Your task to perform on an android device: Clear all items from cart on newegg. Search for razer huntsman on newegg, select the first entry, add it to the cart, then select checkout. Image 0: 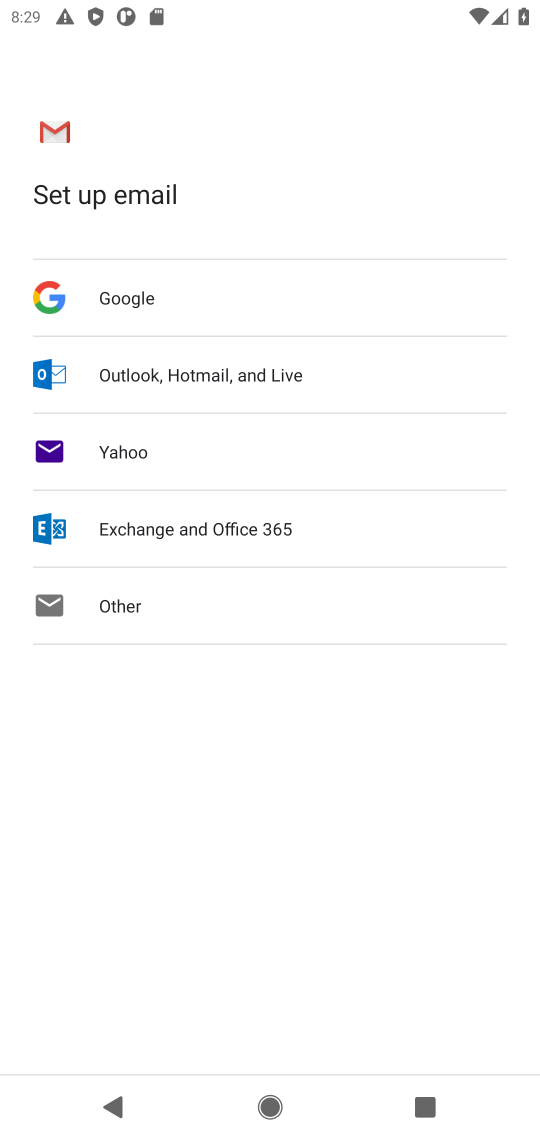
Step 0: press home button
Your task to perform on an android device: Clear all items from cart on newegg. Search for razer huntsman on newegg, select the first entry, add it to the cart, then select checkout. Image 1: 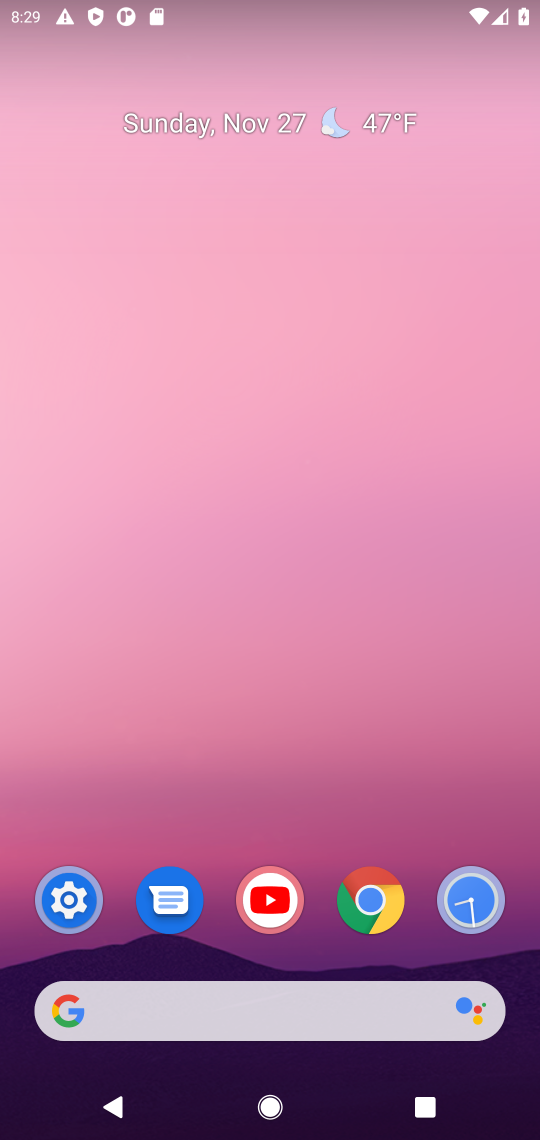
Step 1: click (377, 903)
Your task to perform on an android device: Clear all items from cart on newegg. Search for razer huntsman on newegg, select the first entry, add it to the cart, then select checkout. Image 2: 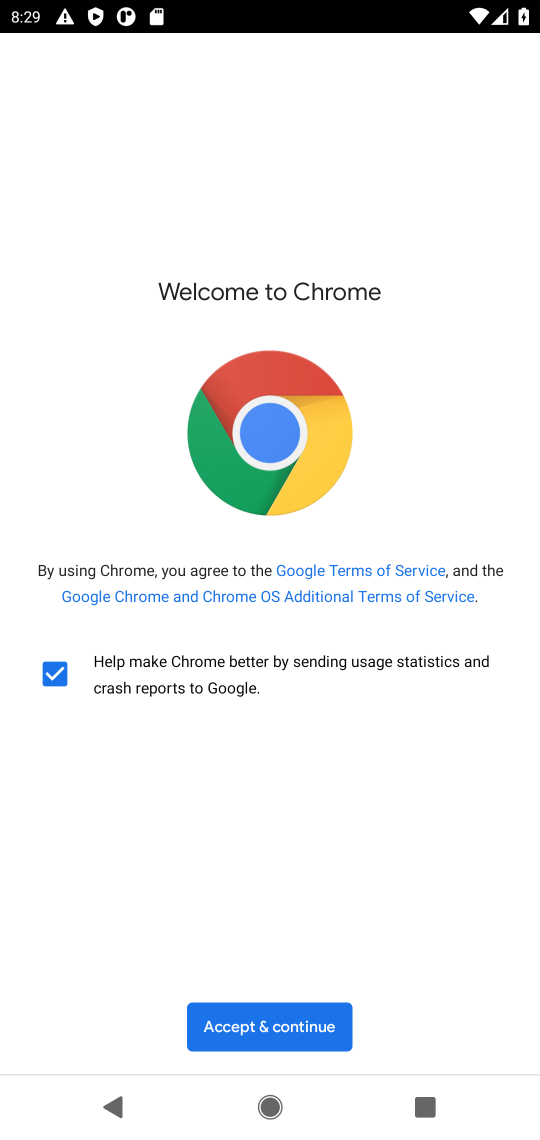
Step 2: click (253, 1013)
Your task to perform on an android device: Clear all items from cart on newegg. Search for razer huntsman on newegg, select the first entry, add it to the cart, then select checkout. Image 3: 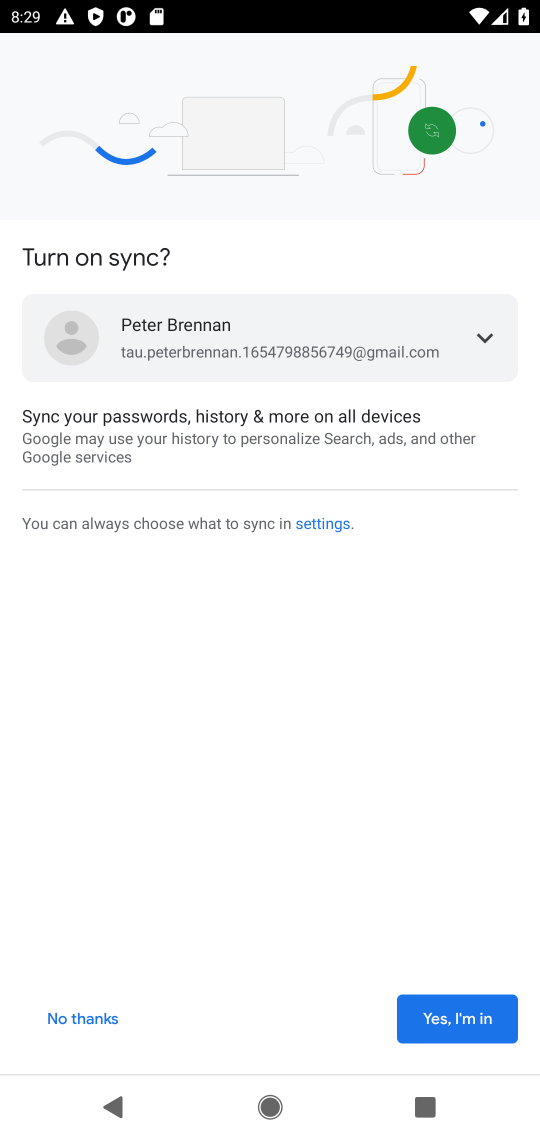
Step 3: click (85, 1025)
Your task to perform on an android device: Clear all items from cart on newegg. Search for razer huntsman on newegg, select the first entry, add it to the cart, then select checkout. Image 4: 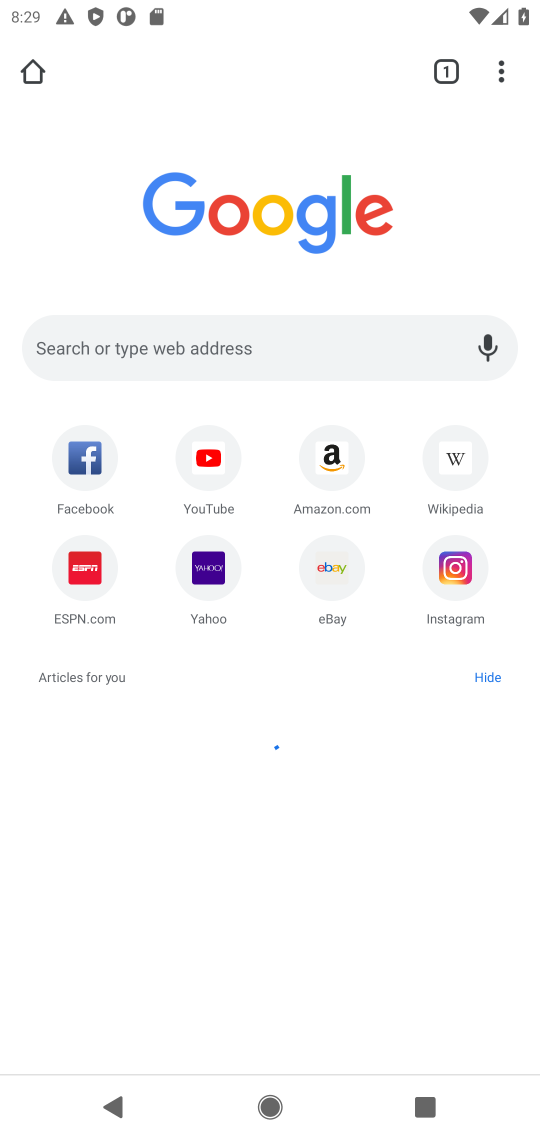
Step 4: click (186, 345)
Your task to perform on an android device: Clear all items from cart on newegg. Search for razer huntsman on newegg, select the first entry, add it to the cart, then select checkout. Image 5: 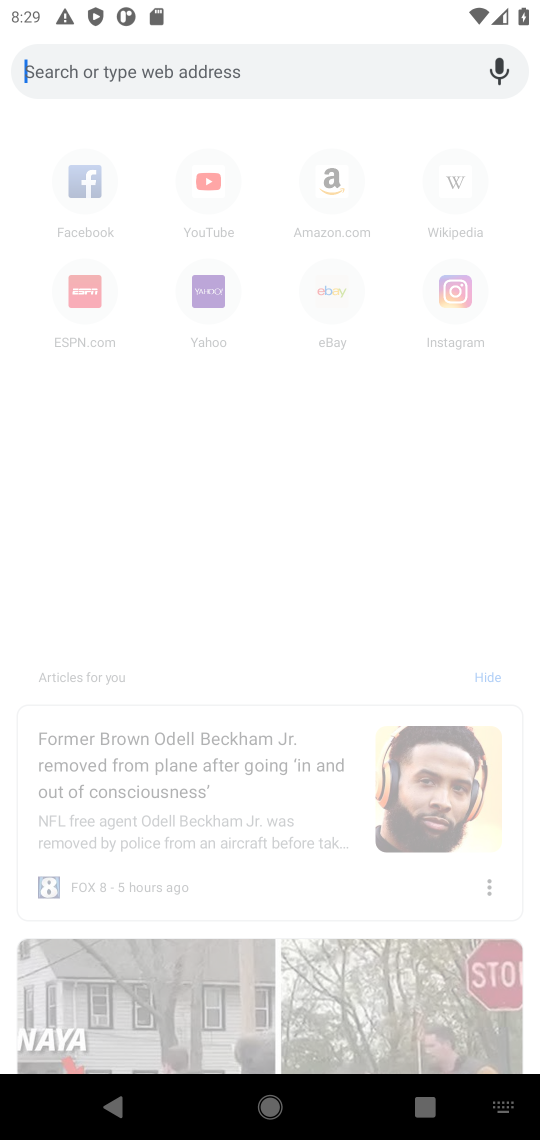
Step 5: type "newegg.com"
Your task to perform on an android device: Clear all items from cart on newegg. Search for razer huntsman on newegg, select the first entry, add it to the cart, then select checkout. Image 6: 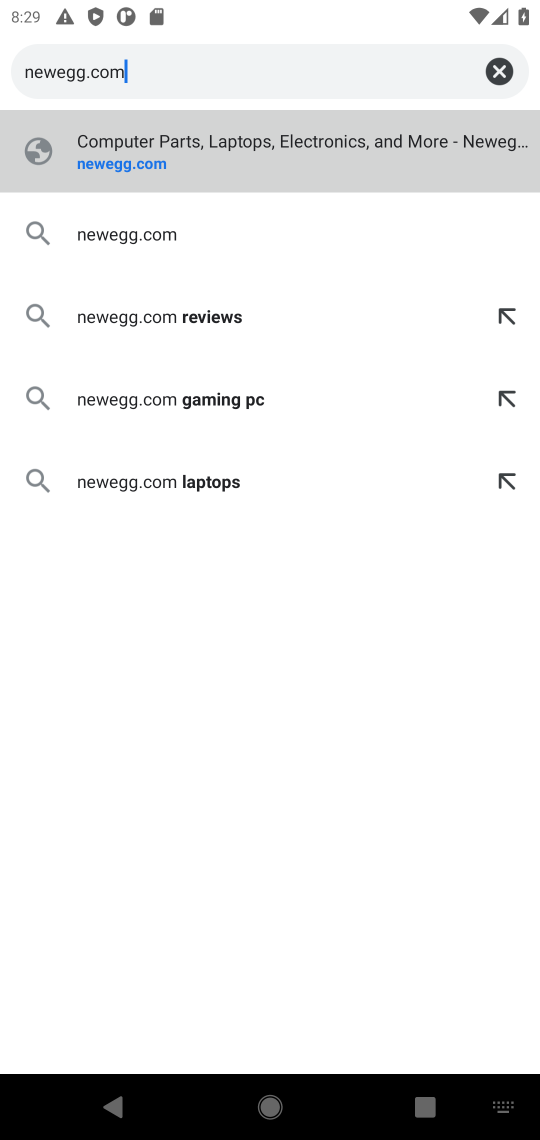
Step 6: click (124, 164)
Your task to perform on an android device: Clear all items from cart on newegg. Search for razer huntsman on newegg, select the first entry, add it to the cart, then select checkout. Image 7: 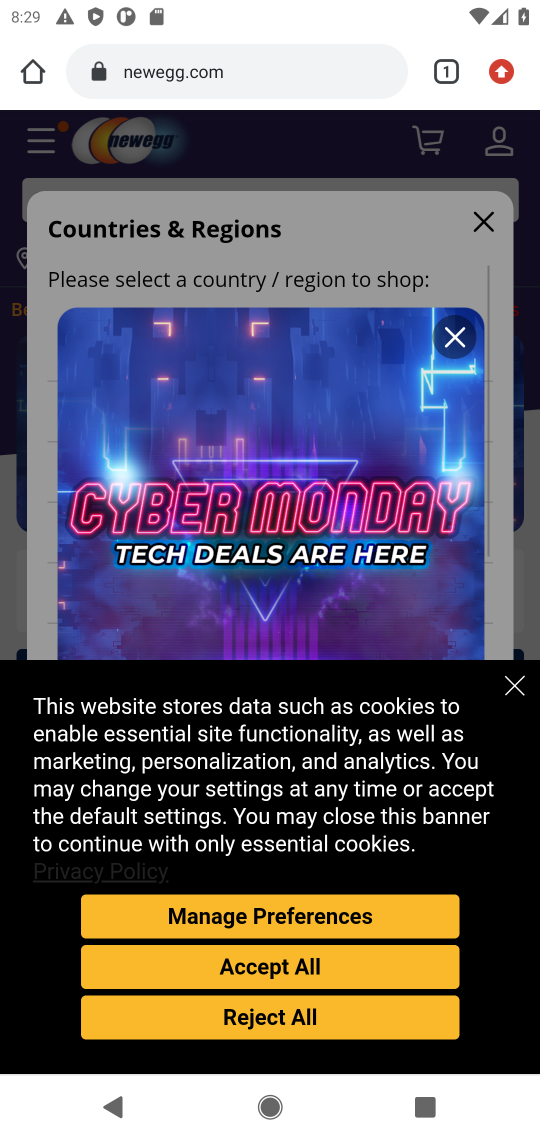
Step 7: click (510, 694)
Your task to perform on an android device: Clear all items from cart on newegg. Search for razer huntsman on newegg, select the first entry, add it to the cart, then select checkout. Image 8: 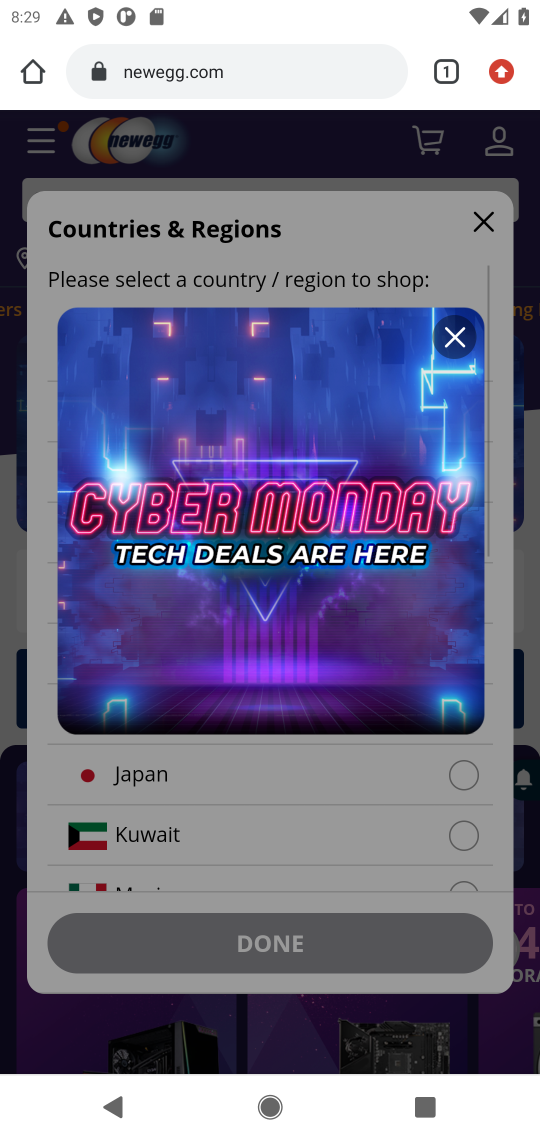
Step 8: click (458, 343)
Your task to perform on an android device: Clear all items from cart on newegg. Search for razer huntsman on newegg, select the first entry, add it to the cart, then select checkout. Image 9: 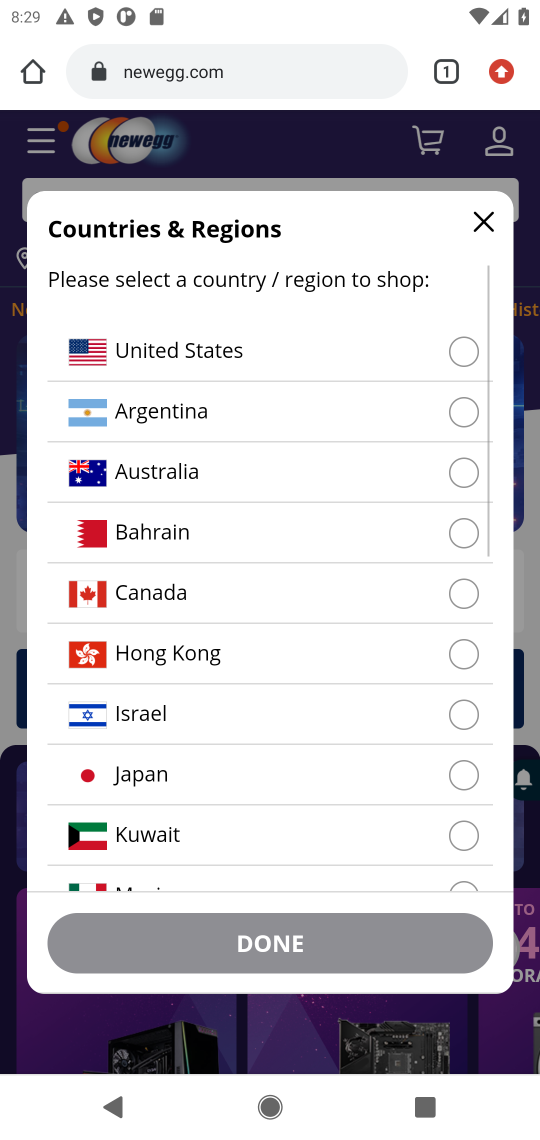
Step 9: click (210, 358)
Your task to perform on an android device: Clear all items from cart on newegg. Search for razer huntsman on newegg, select the first entry, add it to the cart, then select checkout. Image 10: 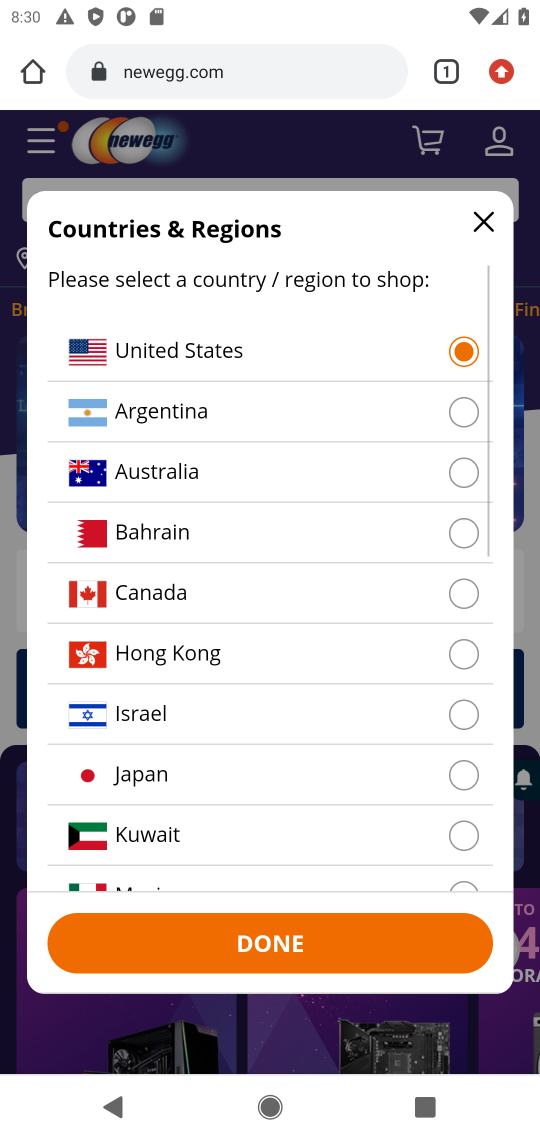
Step 10: click (288, 951)
Your task to perform on an android device: Clear all items from cart on newegg. Search for razer huntsman on newegg, select the first entry, add it to the cart, then select checkout. Image 11: 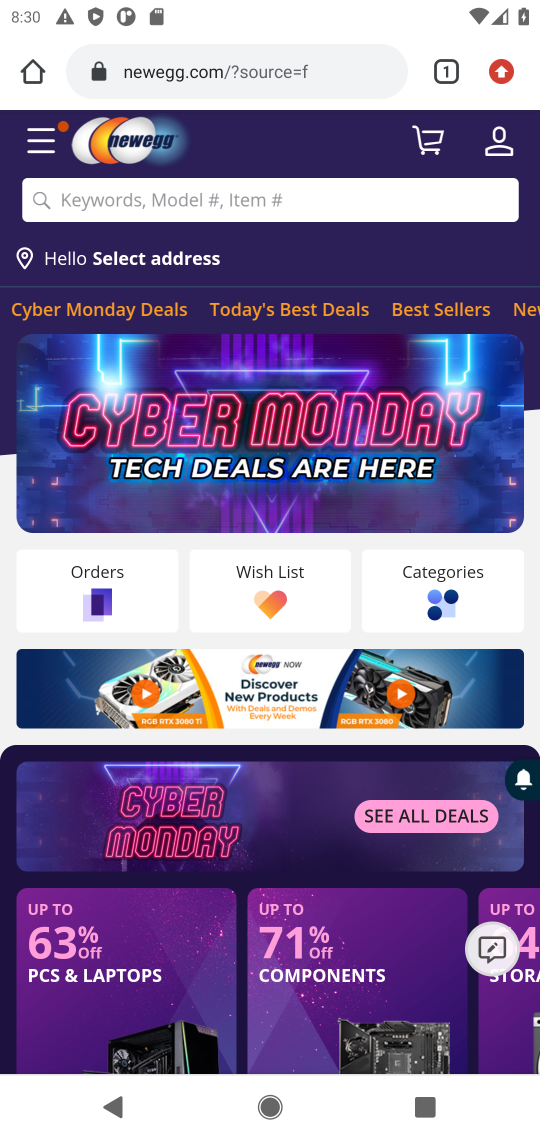
Step 11: click (423, 148)
Your task to perform on an android device: Clear all items from cart on newegg. Search for razer huntsman on newegg, select the first entry, add it to the cart, then select checkout. Image 12: 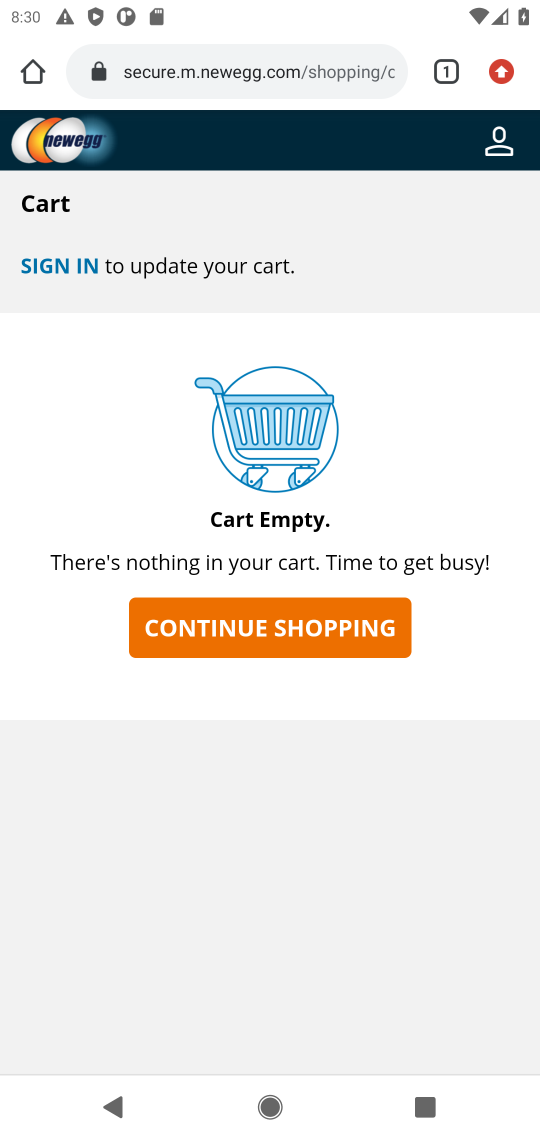
Step 12: click (306, 622)
Your task to perform on an android device: Clear all items from cart on newegg. Search for razer huntsman on newegg, select the first entry, add it to the cart, then select checkout. Image 13: 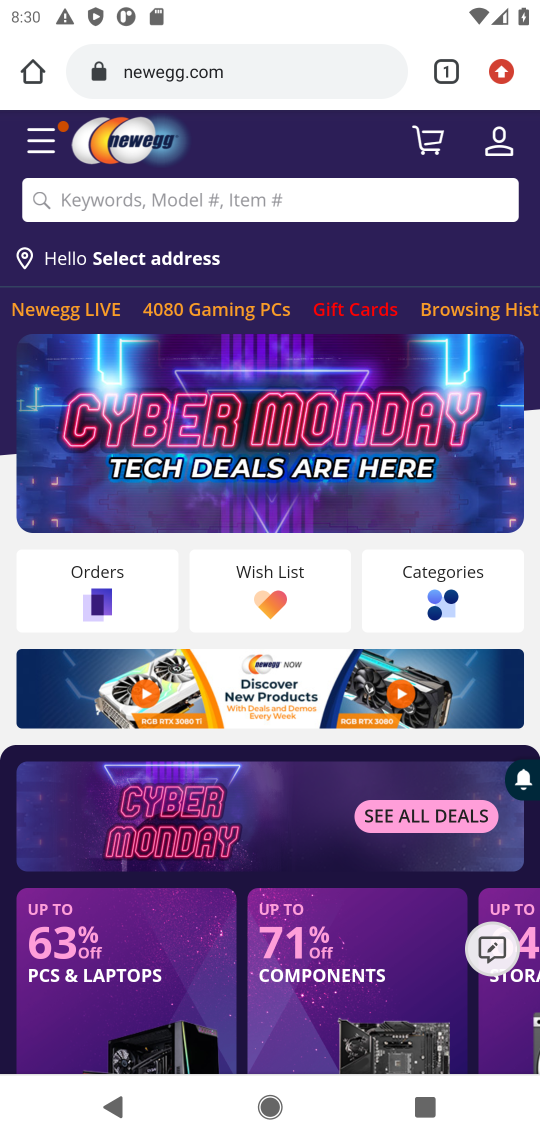
Step 13: click (221, 196)
Your task to perform on an android device: Clear all items from cart on newegg. Search for razer huntsman on newegg, select the first entry, add it to the cart, then select checkout. Image 14: 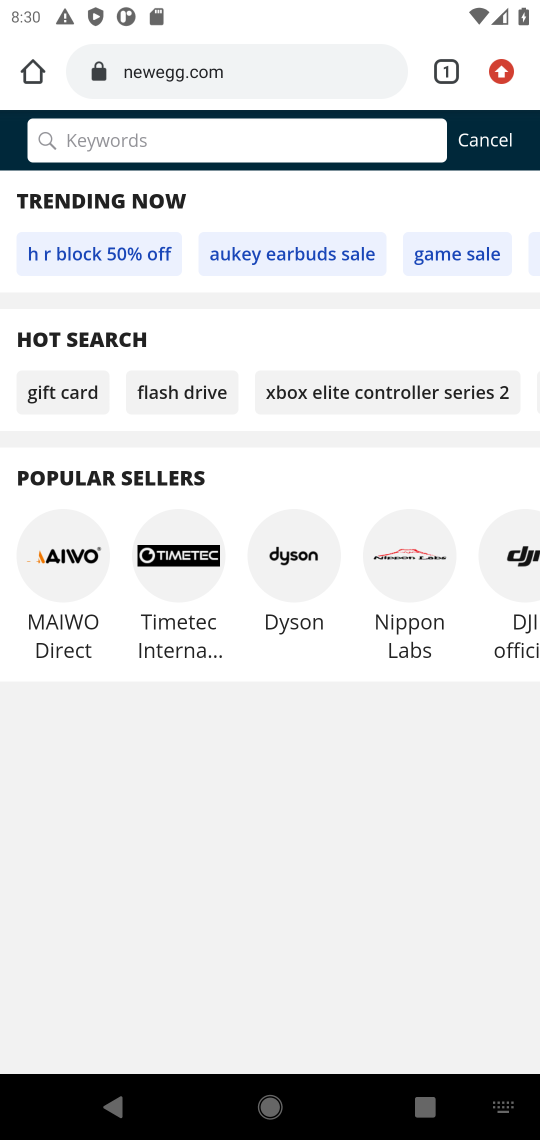
Step 14: type "razer huntsman"
Your task to perform on an android device: Clear all items from cart on newegg. Search for razer huntsman on newegg, select the first entry, add it to the cart, then select checkout. Image 15: 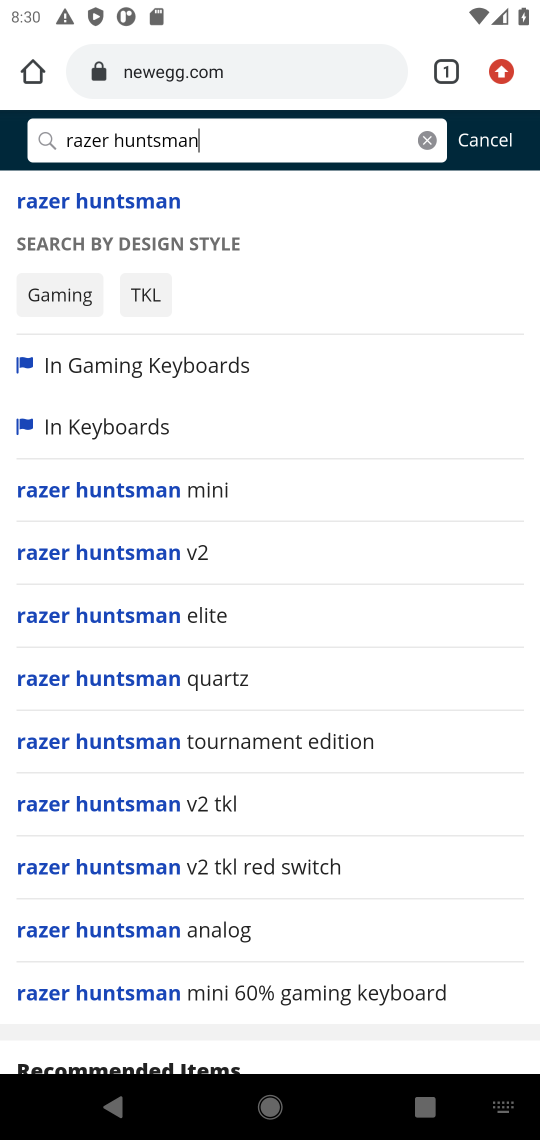
Step 15: click (131, 204)
Your task to perform on an android device: Clear all items from cart on newegg. Search for razer huntsman on newegg, select the first entry, add it to the cart, then select checkout. Image 16: 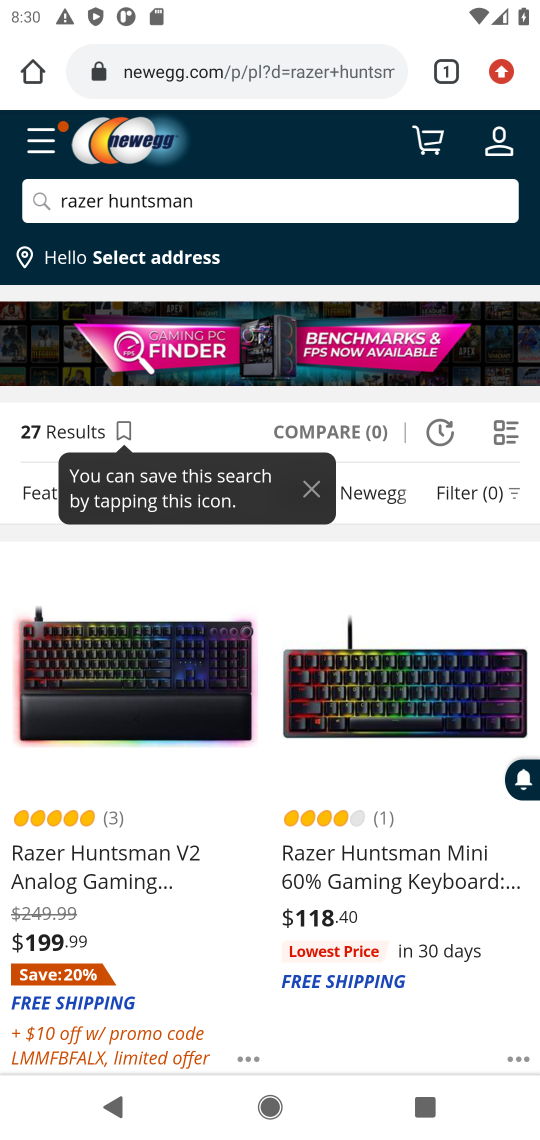
Step 16: click (272, 699)
Your task to perform on an android device: Clear all items from cart on newegg. Search for razer huntsman on newegg, select the first entry, add it to the cart, then select checkout. Image 17: 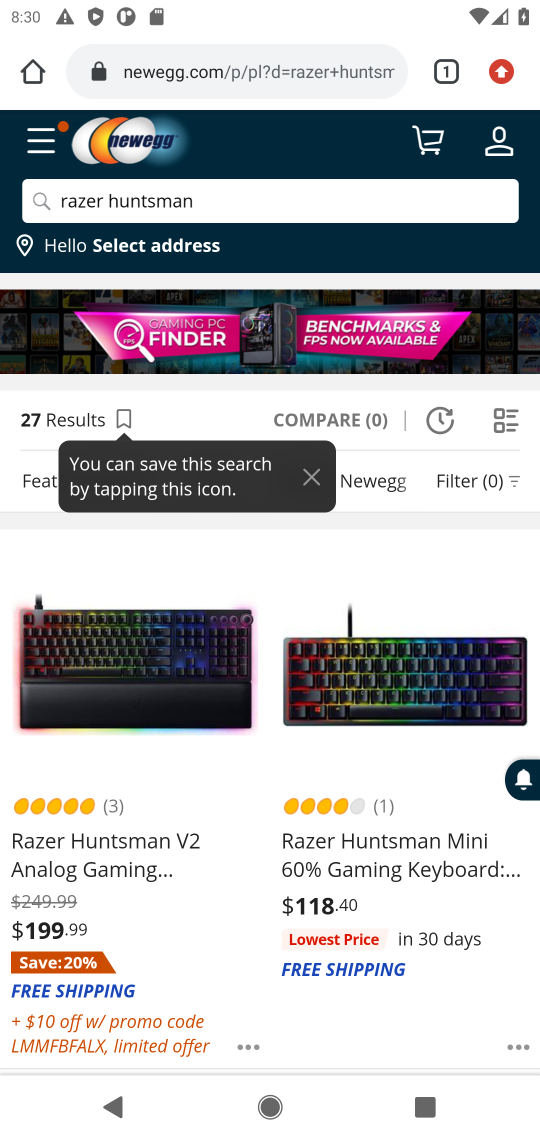
Step 17: click (95, 751)
Your task to perform on an android device: Clear all items from cart on newegg. Search for razer huntsman on newegg, select the first entry, add it to the cart, then select checkout. Image 18: 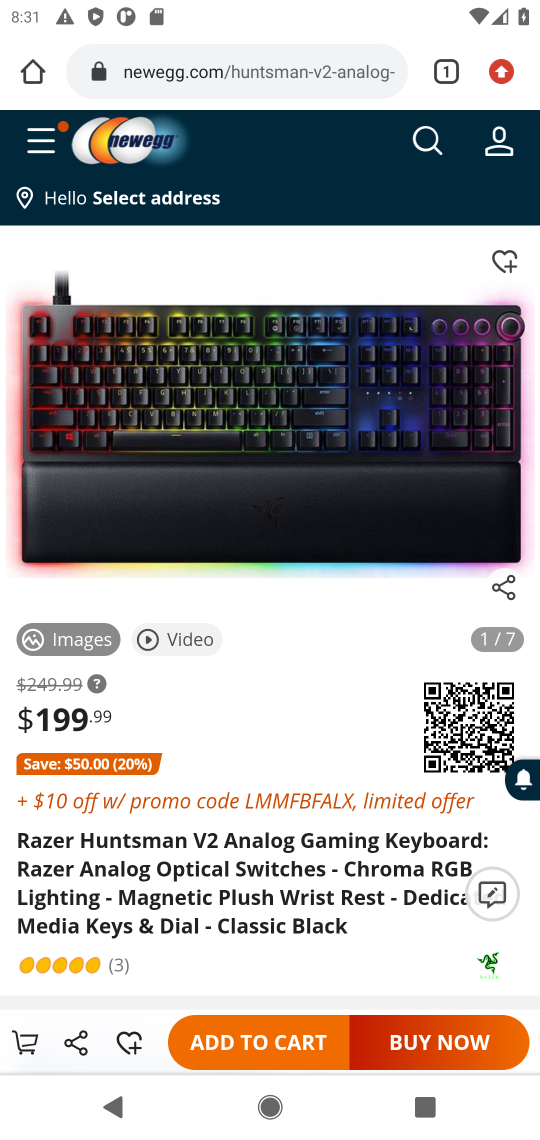
Step 18: click (238, 1038)
Your task to perform on an android device: Clear all items from cart on newegg. Search for razer huntsman on newegg, select the first entry, add it to the cart, then select checkout. Image 19: 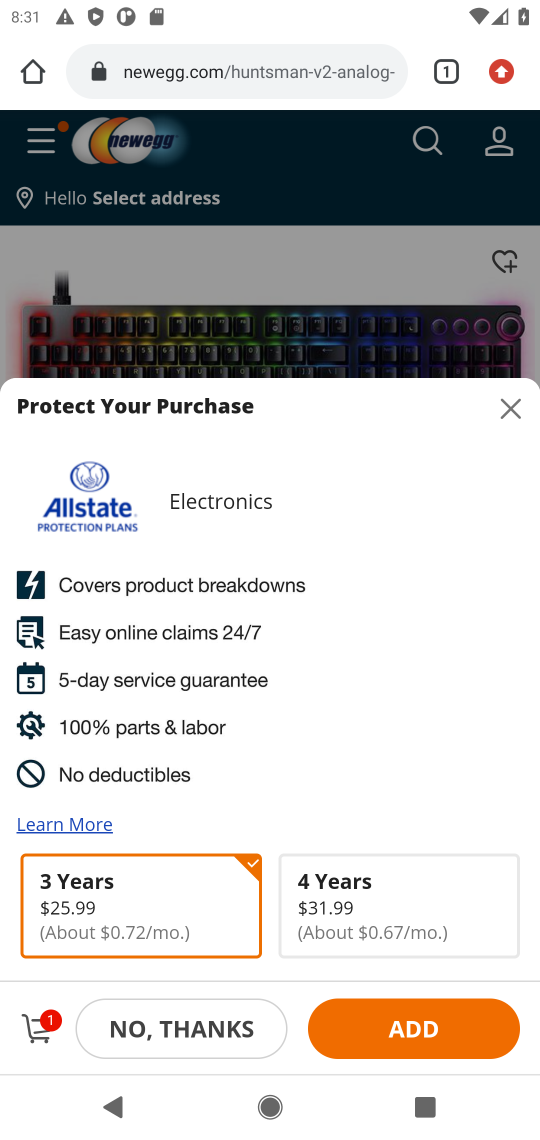
Step 19: click (34, 1027)
Your task to perform on an android device: Clear all items from cart on newegg. Search for razer huntsman on newegg, select the first entry, add it to the cart, then select checkout. Image 20: 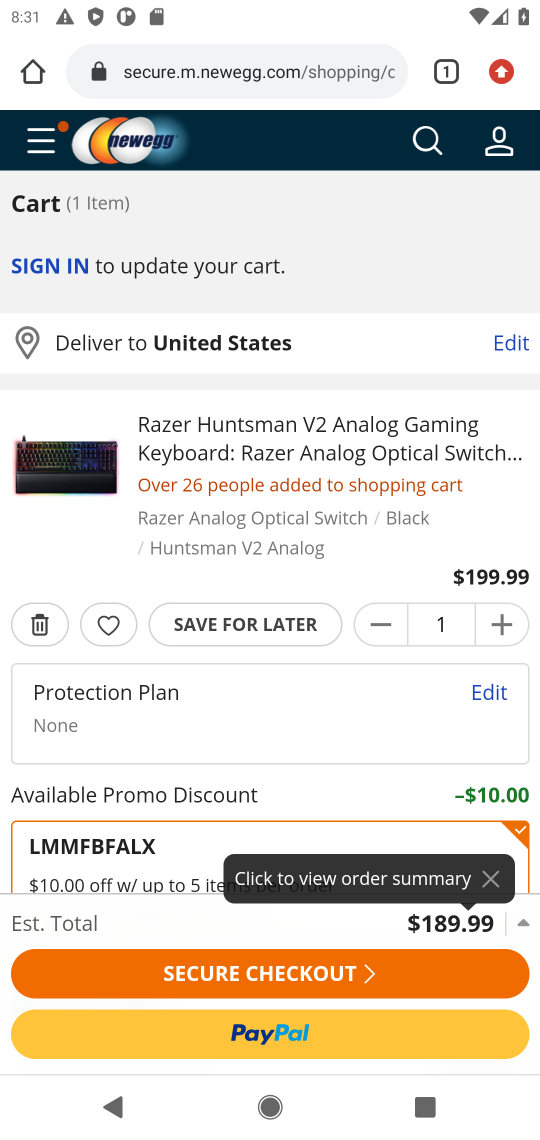
Step 20: click (264, 973)
Your task to perform on an android device: Clear all items from cart on newegg. Search for razer huntsman on newegg, select the first entry, add it to the cart, then select checkout. Image 21: 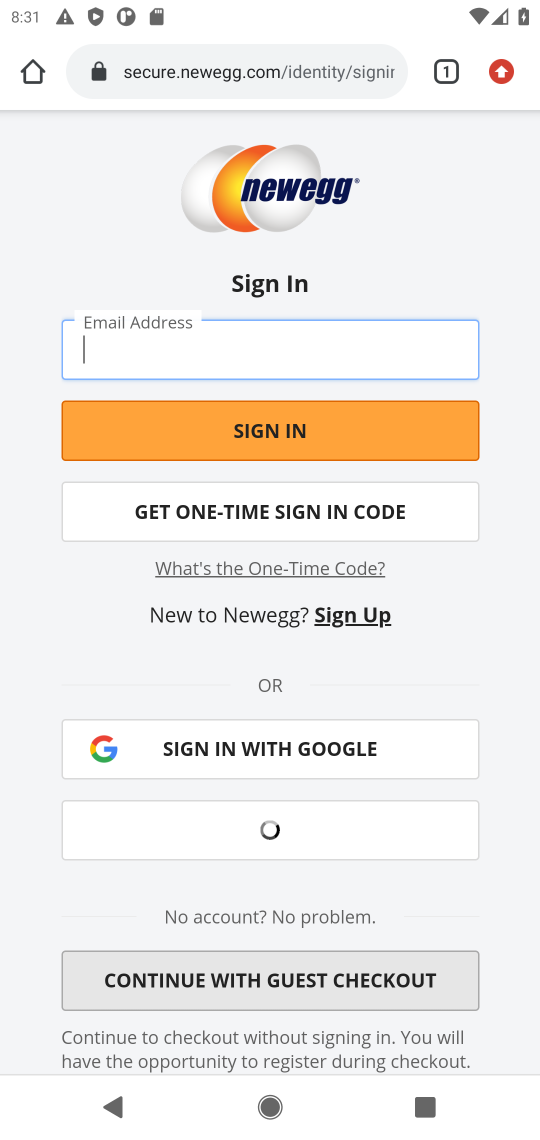
Step 21: task complete